Your task to perform on an android device: turn off wifi Image 0: 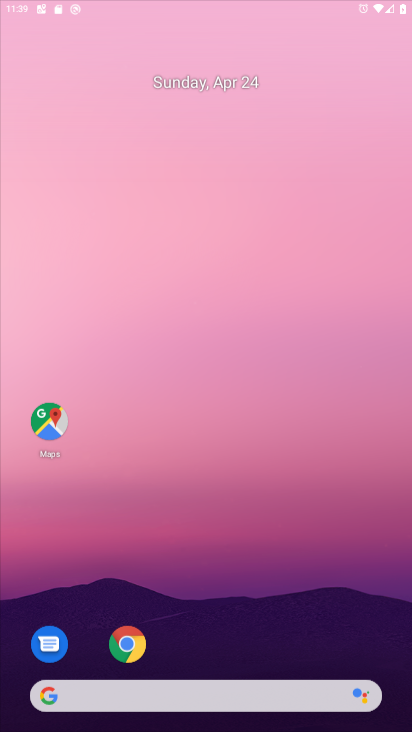
Step 0: drag from (223, 636) to (273, 9)
Your task to perform on an android device: turn off wifi Image 1: 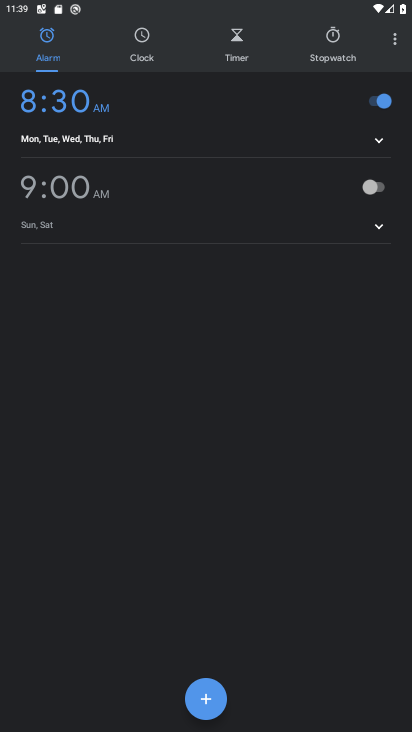
Step 1: press home button
Your task to perform on an android device: turn off wifi Image 2: 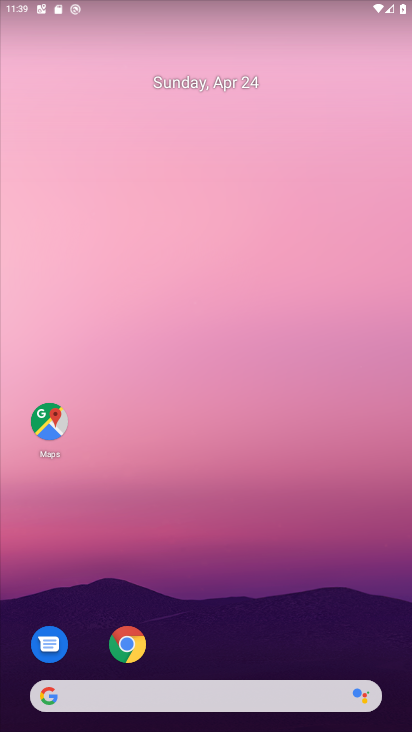
Step 2: drag from (214, 629) to (261, 5)
Your task to perform on an android device: turn off wifi Image 3: 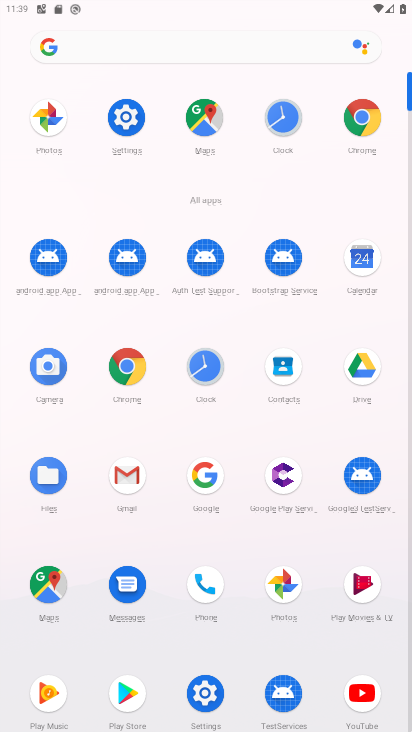
Step 3: click (130, 126)
Your task to perform on an android device: turn off wifi Image 4: 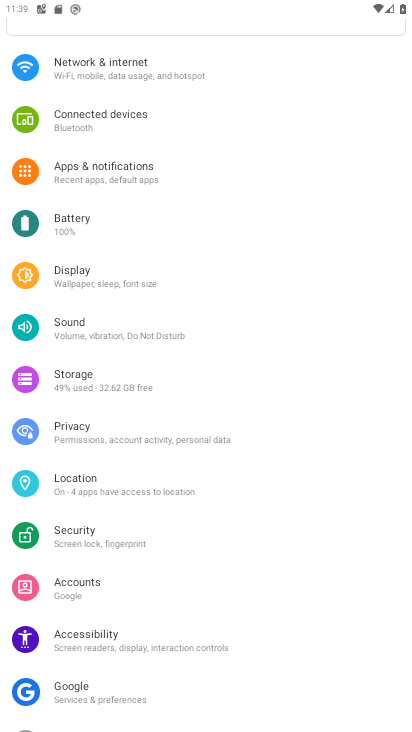
Step 4: drag from (134, 151) to (134, 364)
Your task to perform on an android device: turn off wifi Image 5: 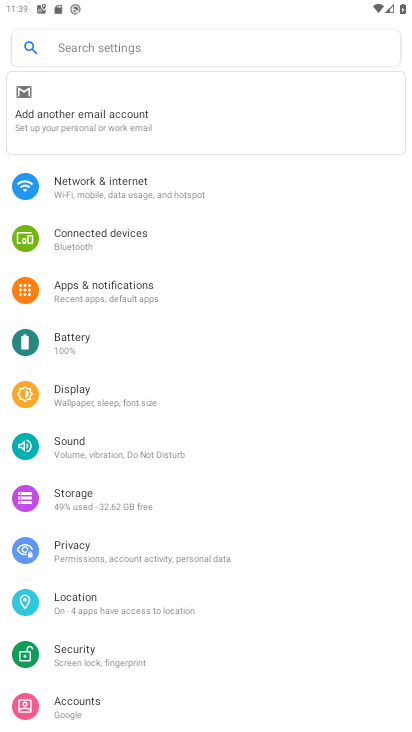
Step 5: click (90, 200)
Your task to perform on an android device: turn off wifi Image 6: 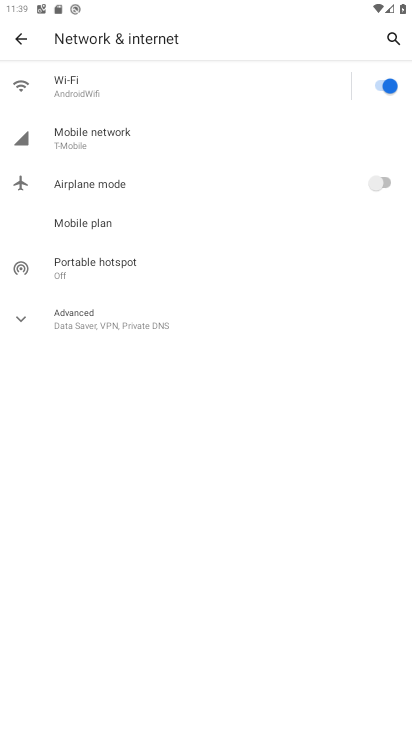
Step 6: click (374, 88)
Your task to perform on an android device: turn off wifi Image 7: 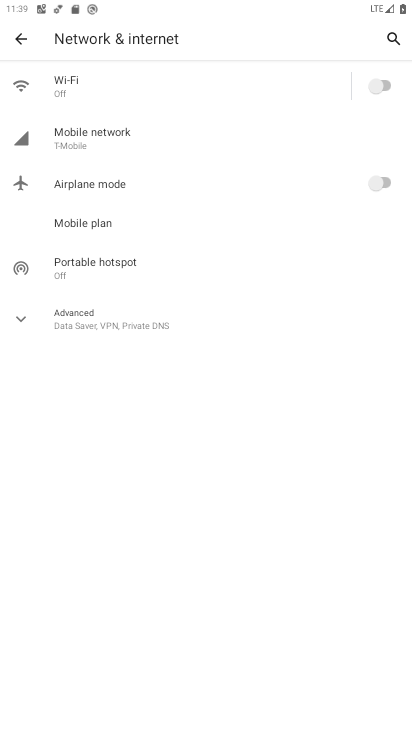
Step 7: task complete